Your task to perform on an android device: turn on notifications settings in the gmail app Image 0: 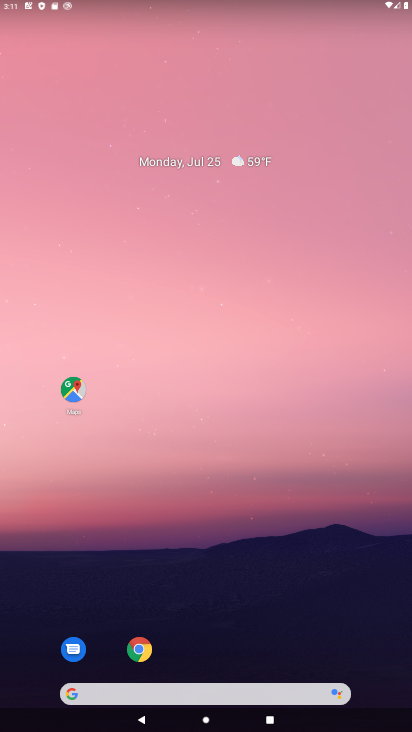
Step 0: drag from (174, 696) to (302, 46)
Your task to perform on an android device: turn on notifications settings in the gmail app Image 1: 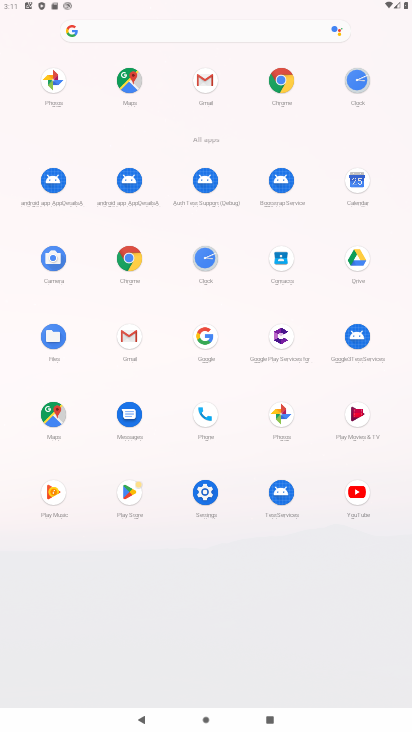
Step 1: click (204, 73)
Your task to perform on an android device: turn on notifications settings in the gmail app Image 2: 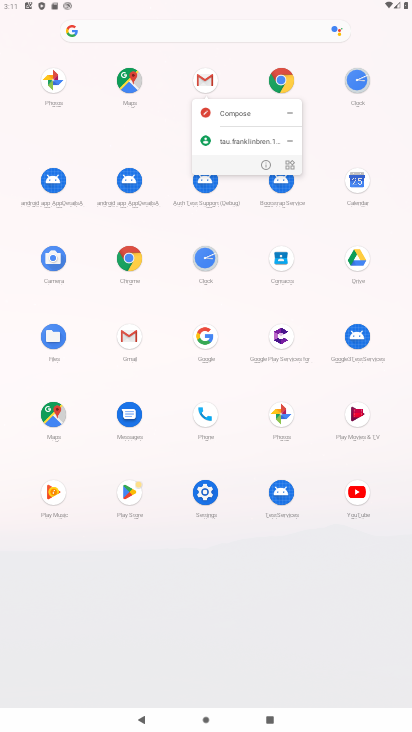
Step 2: click (268, 162)
Your task to perform on an android device: turn on notifications settings in the gmail app Image 3: 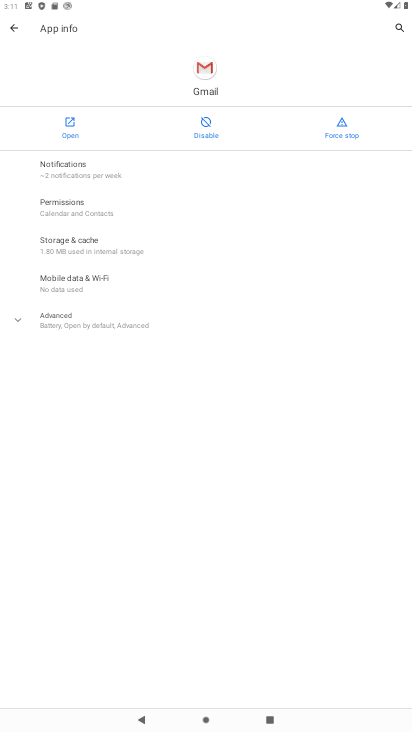
Step 3: click (90, 174)
Your task to perform on an android device: turn on notifications settings in the gmail app Image 4: 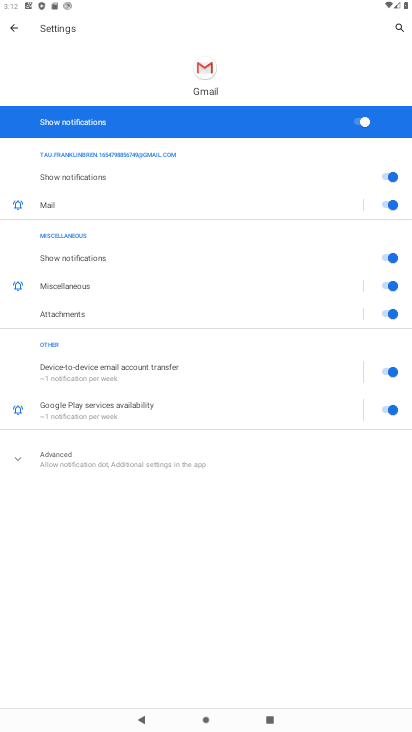
Step 4: task complete